Your task to perform on an android device: What is the recent news? Image 0: 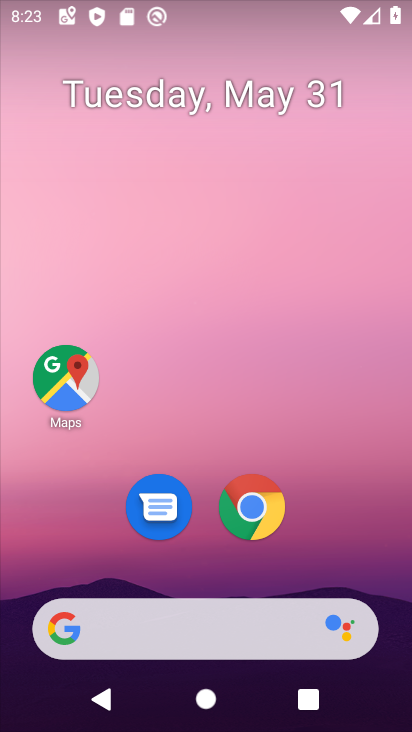
Step 0: click (257, 511)
Your task to perform on an android device: What is the recent news? Image 1: 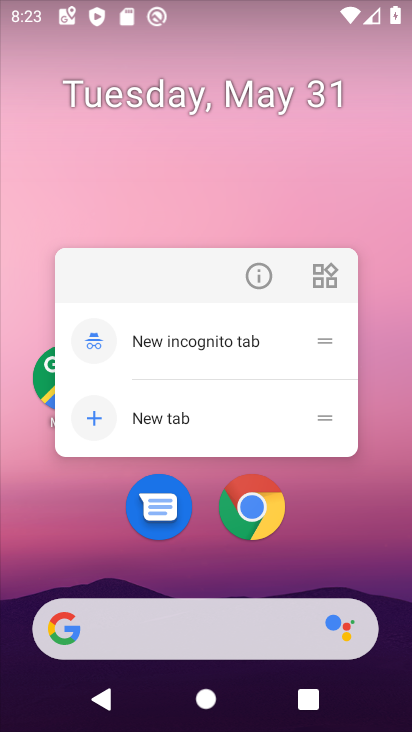
Step 1: click (256, 511)
Your task to perform on an android device: What is the recent news? Image 2: 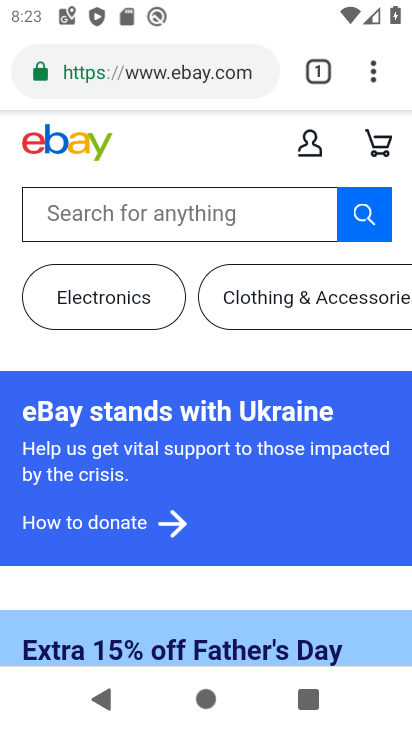
Step 2: click (161, 76)
Your task to perform on an android device: What is the recent news? Image 3: 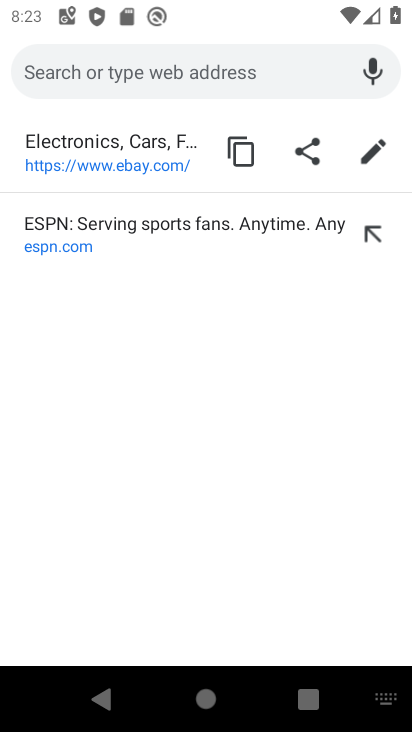
Step 3: type "news"
Your task to perform on an android device: What is the recent news? Image 4: 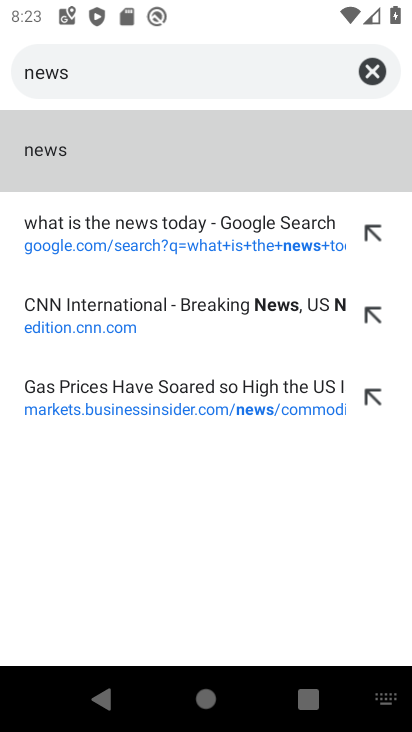
Step 4: click (31, 149)
Your task to perform on an android device: What is the recent news? Image 5: 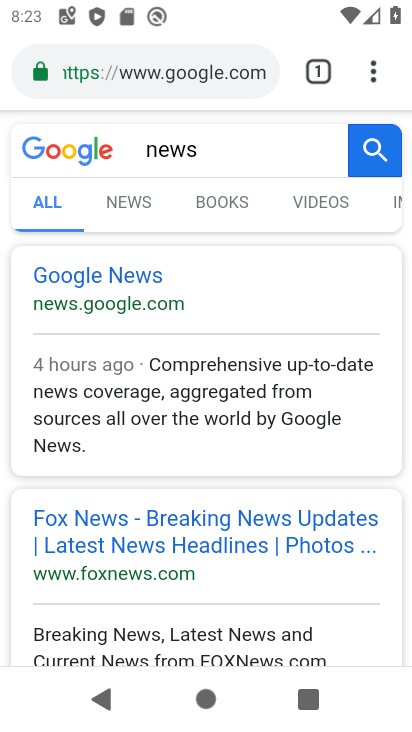
Step 5: click (124, 210)
Your task to perform on an android device: What is the recent news? Image 6: 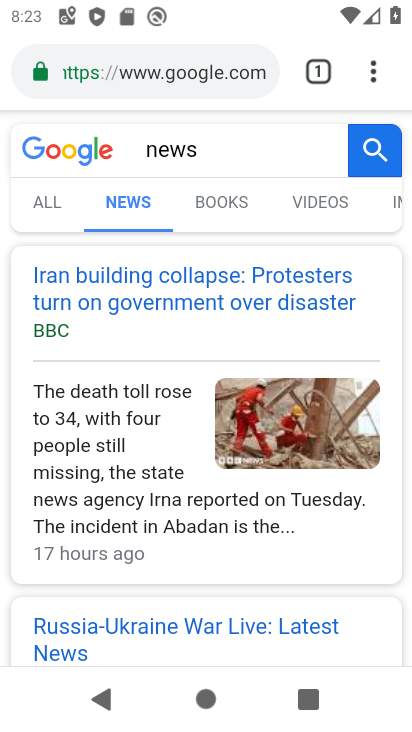
Step 6: task complete